Your task to perform on an android device: Open network settings Image 0: 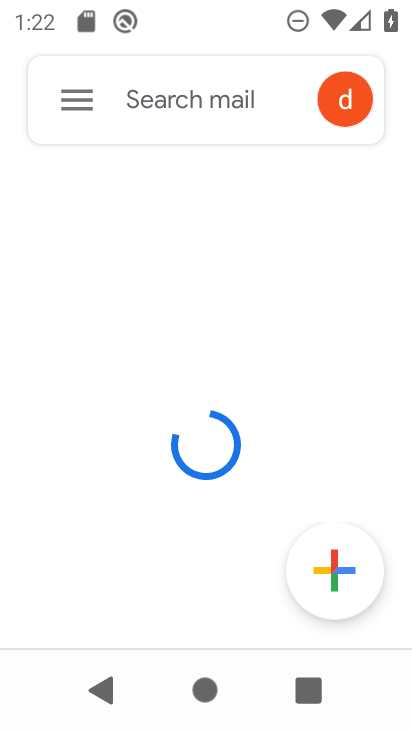
Step 0: press home button
Your task to perform on an android device: Open network settings Image 1: 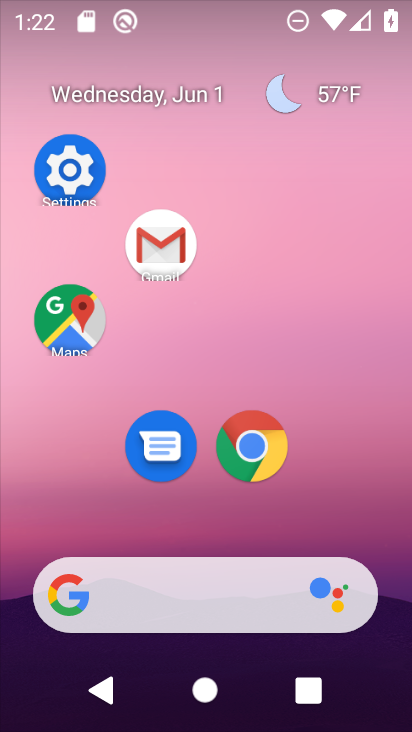
Step 1: click (77, 191)
Your task to perform on an android device: Open network settings Image 2: 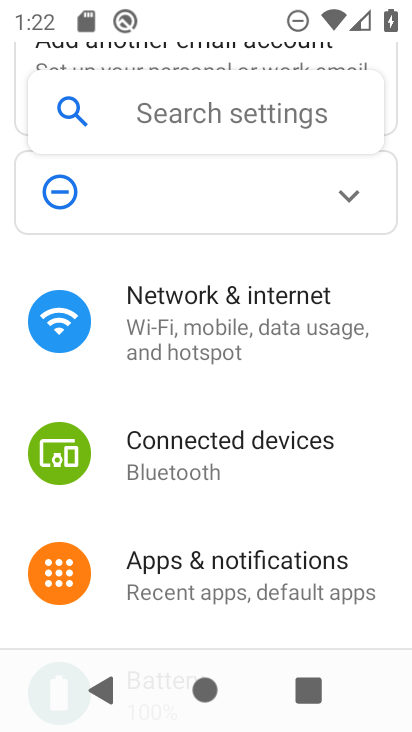
Step 2: click (226, 354)
Your task to perform on an android device: Open network settings Image 3: 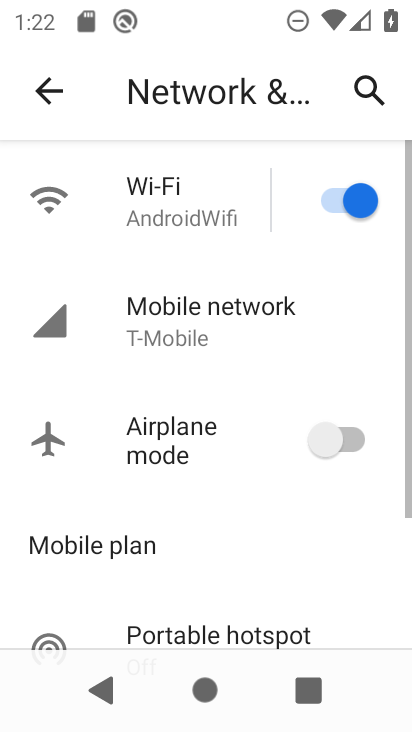
Step 3: task complete